Your task to perform on an android device: delete the emails in spam in the gmail app Image 0: 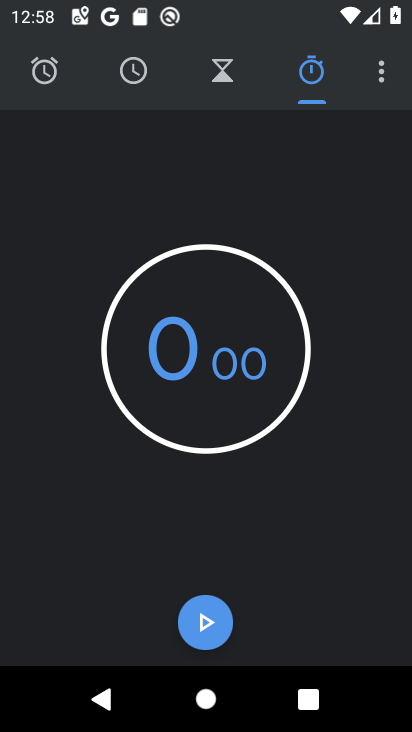
Step 0: press home button
Your task to perform on an android device: delete the emails in spam in the gmail app Image 1: 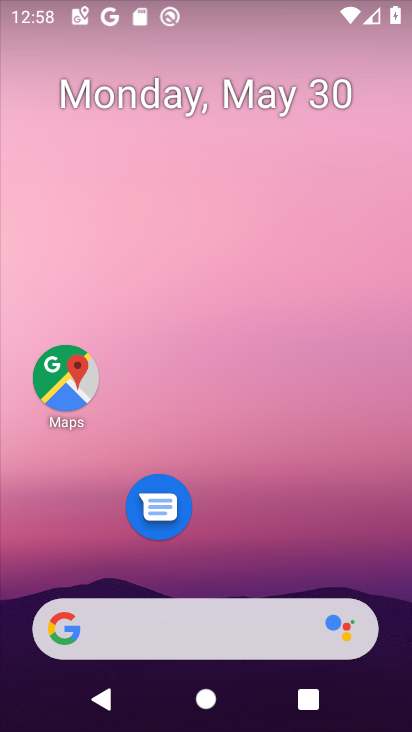
Step 1: drag from (319, 549) to (356, 83)
Your task to perform on an android device: delete the emails in spam in the gmail app Image 2: 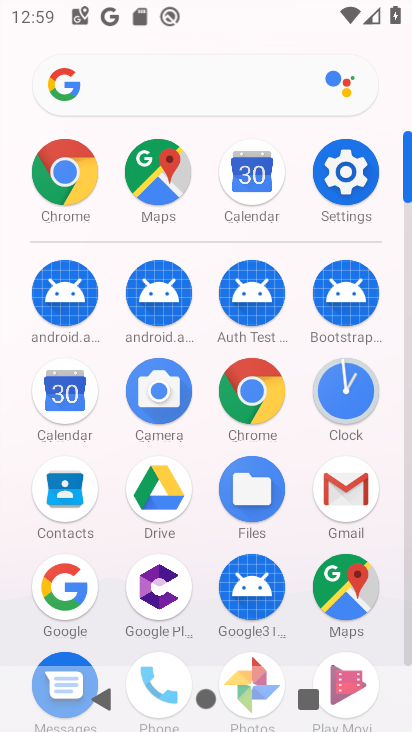
Step 2: click (353, 496)
Your task to perform on an android device: delete the emails in spam in the gmail app Image 3: 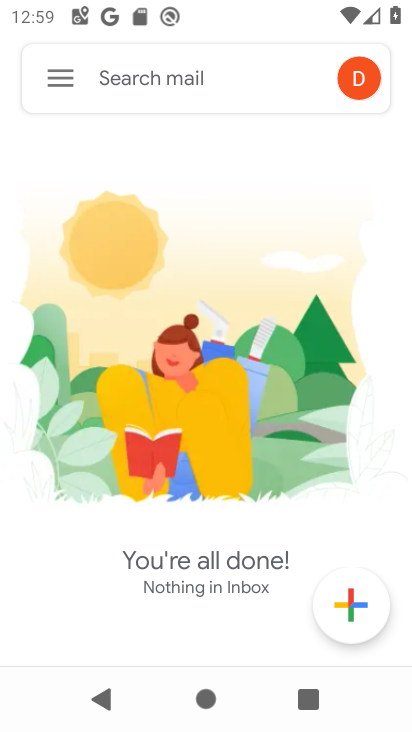
Step 3: click (60, 79)
Your task to perform on an android device: delete the emails in spam in the gmail app Image 4: 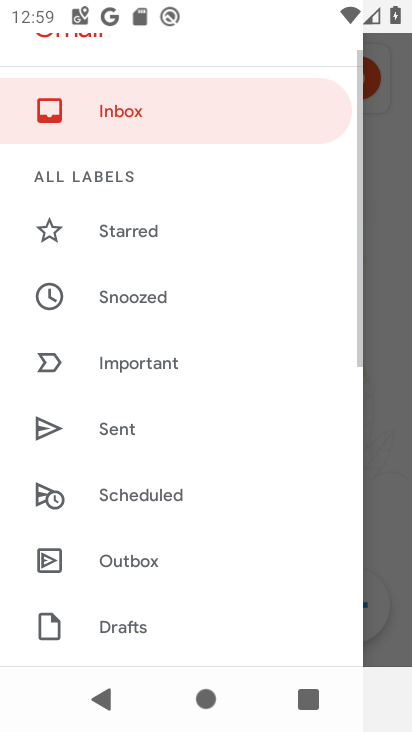
Step 4: drag from (191, 532) to (234, 269)
Your task to perform on an android device: delete the emails in spam in the gmail app Image 5: 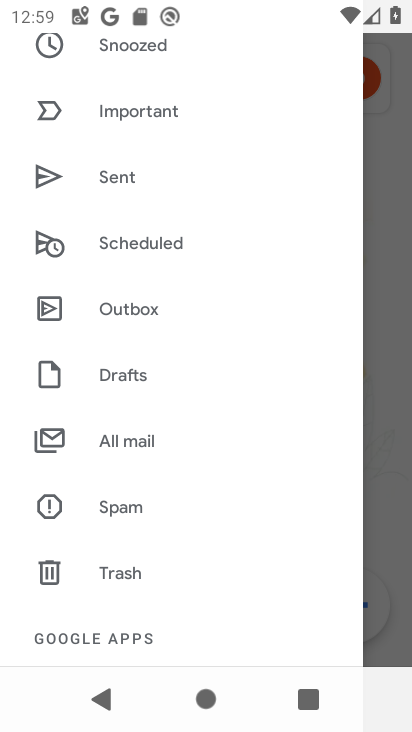
Step 5: click (90, 507)
Your task to perform on an android device: delete the emails in spam in the gmail app Image 6: 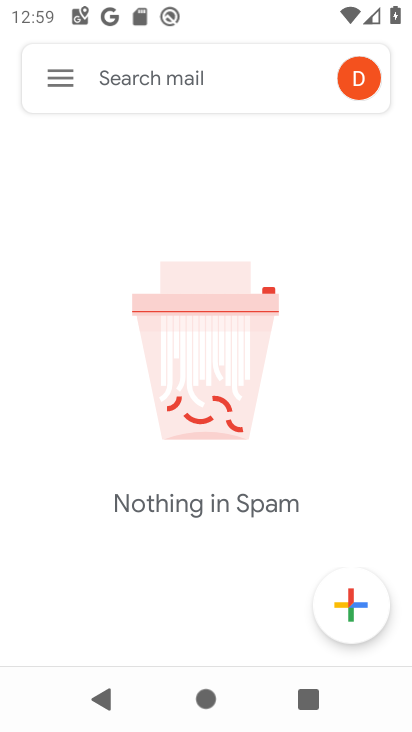
Step 6: task complete